Your task to perform on an android device: clear all cookies in the chrome app Image 0: 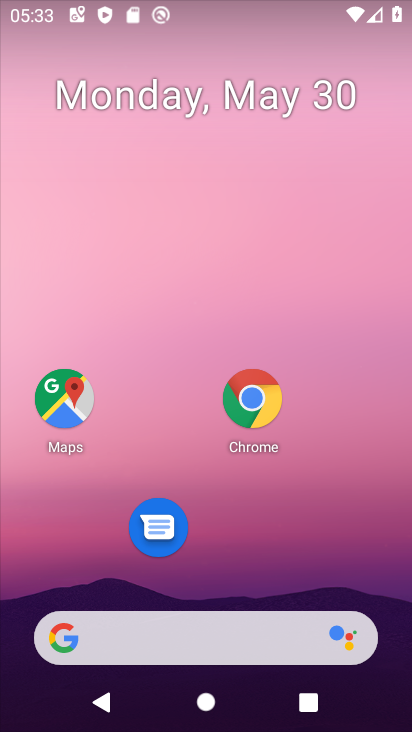
Step 0: click (245, 392)
Your task to perform on an android device: clear all cookies in the chrome app Image 1: 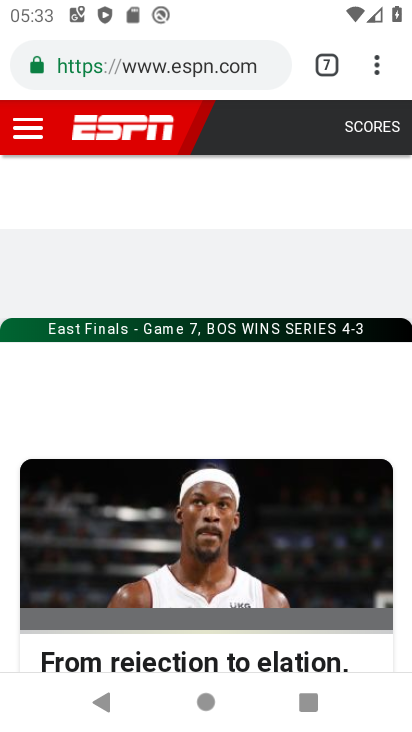
Step 1: click (377, 71)
Your task to perform on an android device: clear all cookies in the chrome app Image 2: 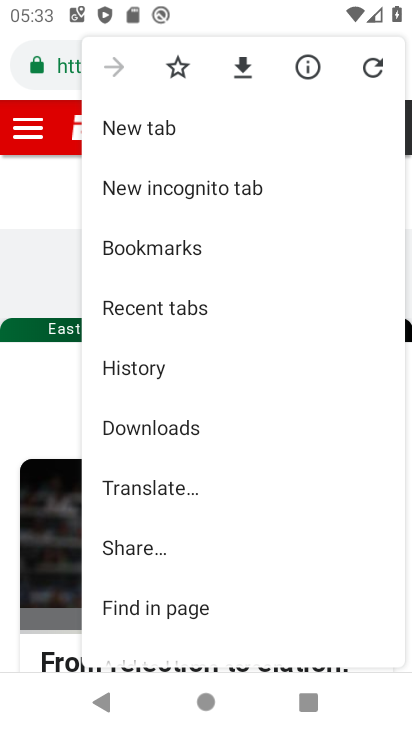
Step 2: click (136, 364)
Your task to perform on an android device: clear all cookies in the chrome app Image 3: 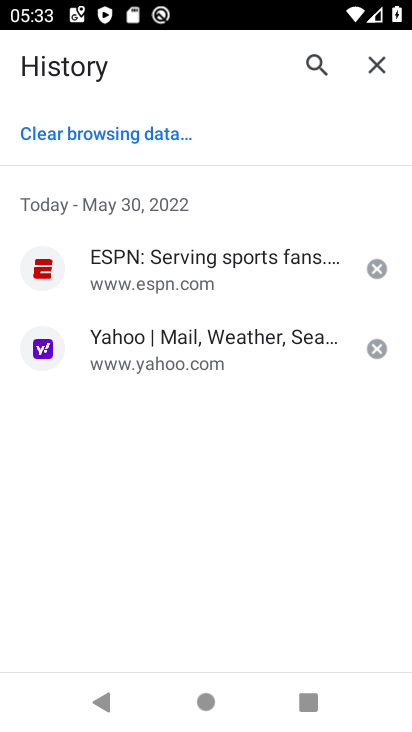
Step 3: click (148, 129)
Your task to perform on an android device: clear all cookies in the chrome app Image 4: 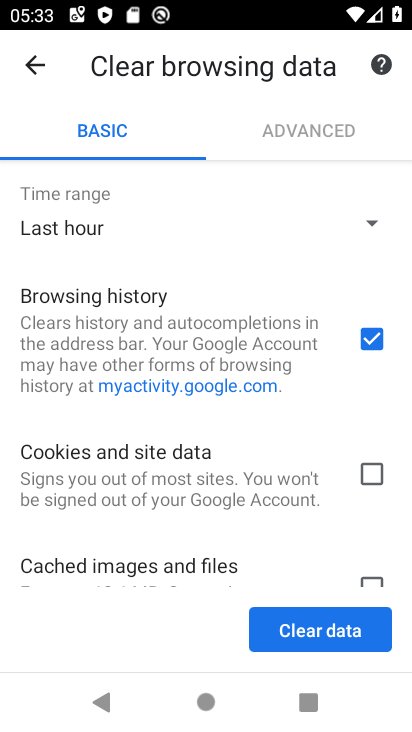
Step 4: click (369, 340)
Your task to perform on an android device: clear all cookies in the chrome app Image 5: 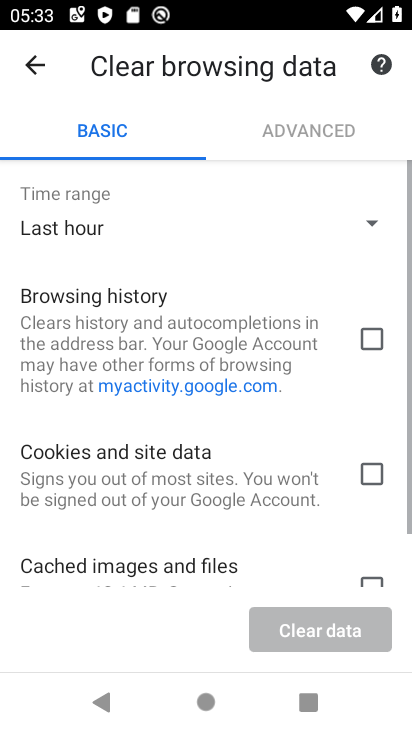
Step 5: click (380, 474)
Your task to perform on an android device: clear all cookies in the chrome app Image 6: 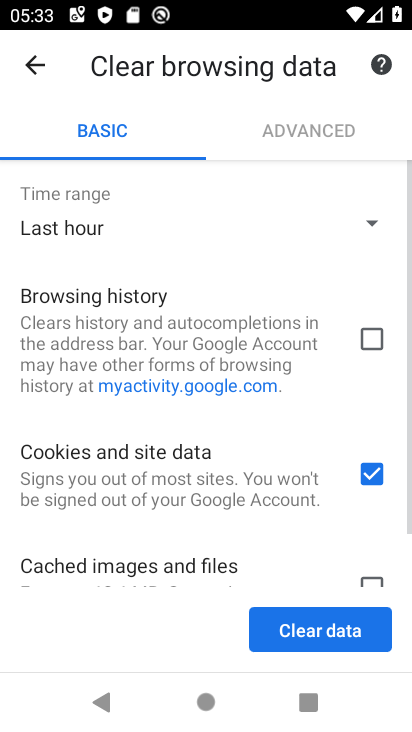
Step 6: click (343, 631)
Your task to perform on an android device: clear all cookies in the chrome app Image 7: 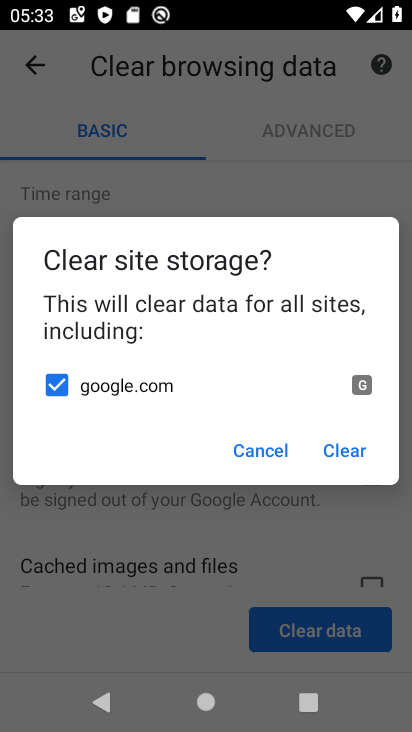
Step 7: click (347, 448)
Your task to perform on an android device: clear all cookies in the chrome app Image 8: 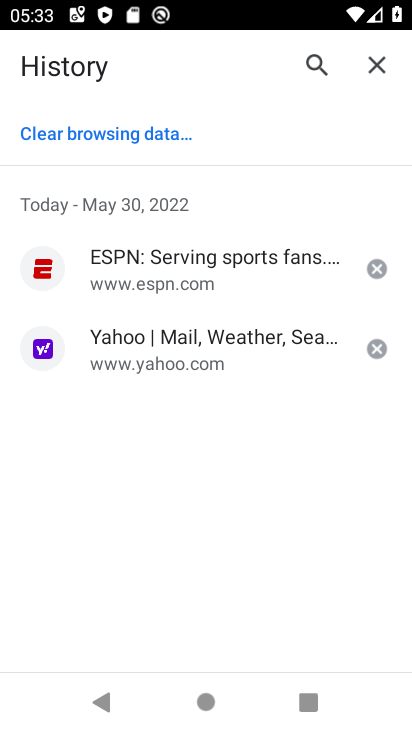
Step 8: task complete